Your task to perform on an android device: Go to settings Image 0: 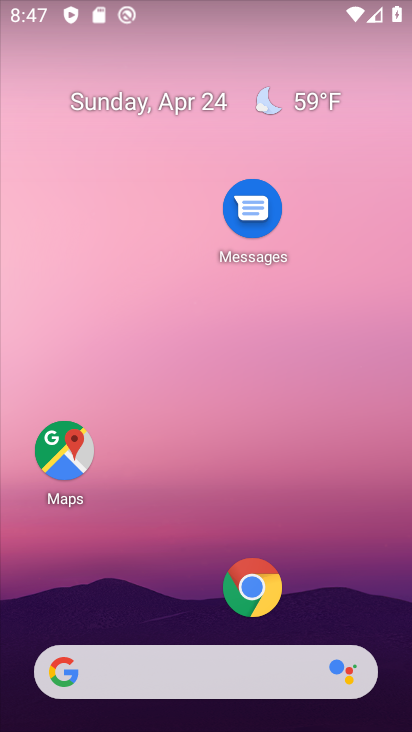
Step 0: drag from (167, 589) to (177, 11)
Your task to perform on an android device: Go to settings Image 1: 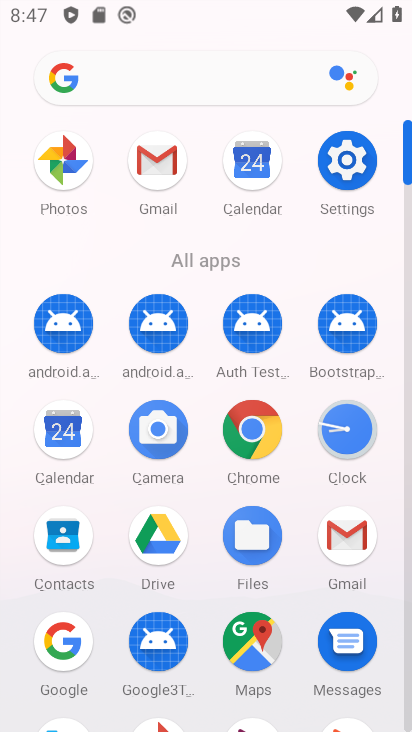
Step 1: click (355, 202)
Your task to perform on an android device: Go to settings Image 2: 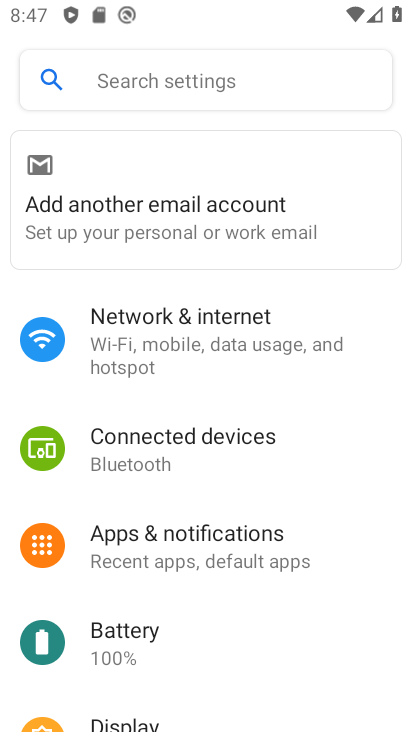
Step 2: task complete